Your task to perform on an android device: turn on the 12-hour format for clock Image 0: 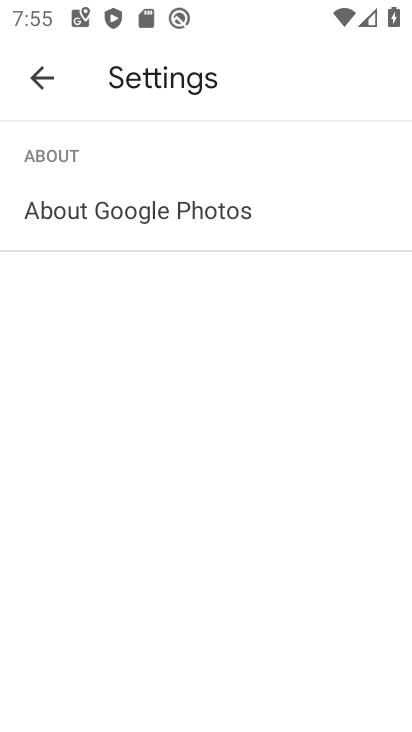
Step 0: press home button
Your task to perform on an android device: turn on the 12-hour format for clock Image 1: 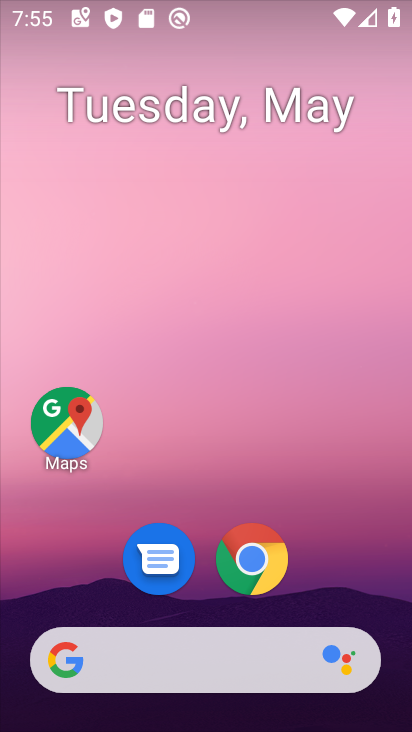
Step 1: drag from (400, 501) to (374, 58)
Your task to perform on an android device: turn on the 12-hour format for clock Image 2: 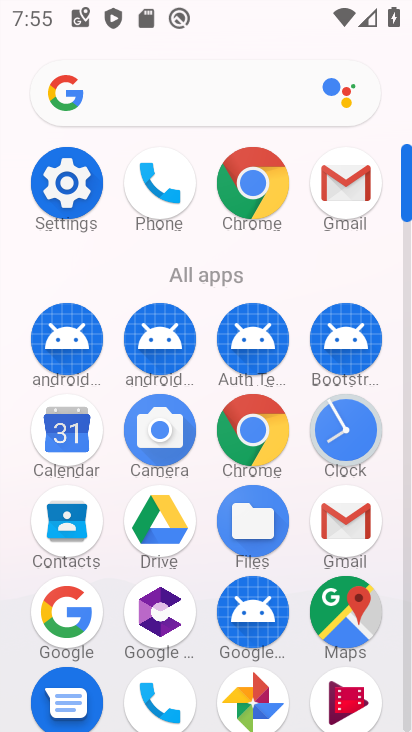
Step 2: click (337, 444)
Your task to perform on an android device: turn on the 12-hour format for clock Image 3: 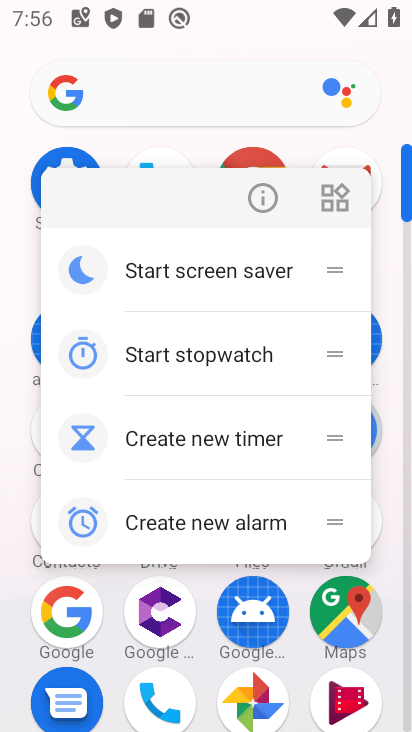
Step 3: press back button
Your task to perform on an android device: turn on the 12-hour format for clock Image 4: 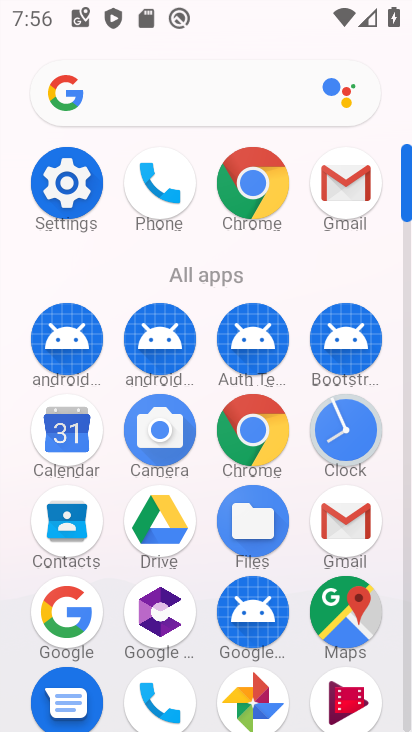
Step 4: click (352, 427)
Your task to perform on an android device: turn on the 12-hour format for clock Image 5: 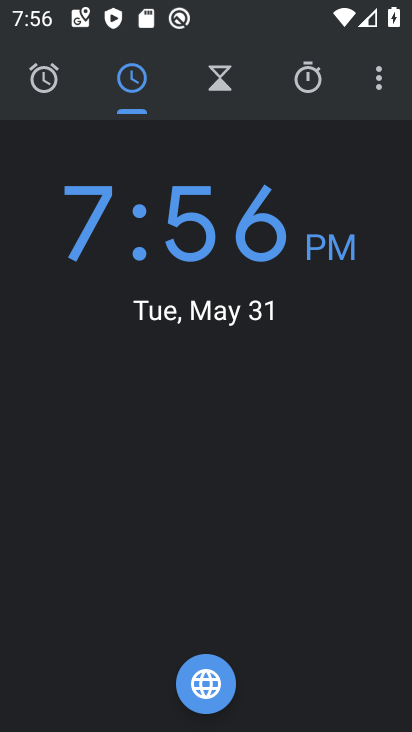
Step 5: click (392, 91)
Your task to perform on an android device: turn on the 12-hour format for clock Image 6: 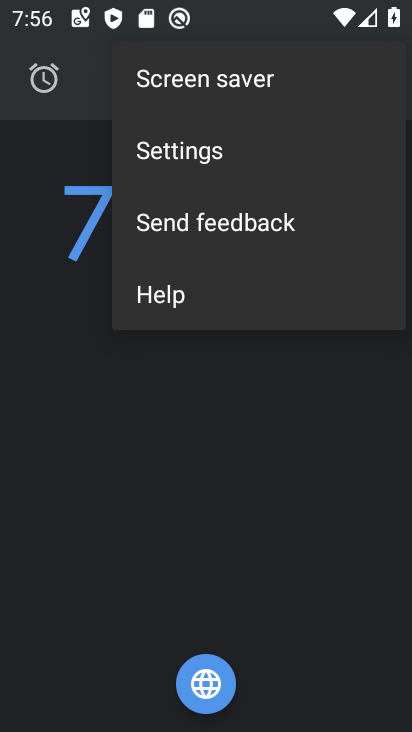
Step 6: click (182, 163)
Your task to perform on an android device: turn on the 12-hour format for clock Image 7: 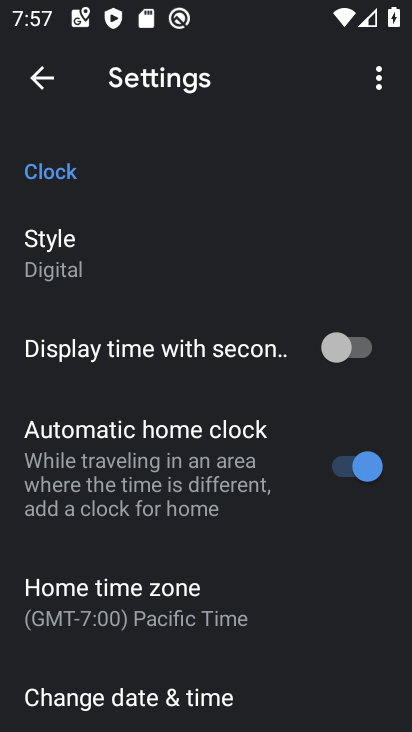
Step 7: drag from (151, 578) to (93, 260)
Your task to perform on an android device: turn on the 12-hour format for clock Image 8: 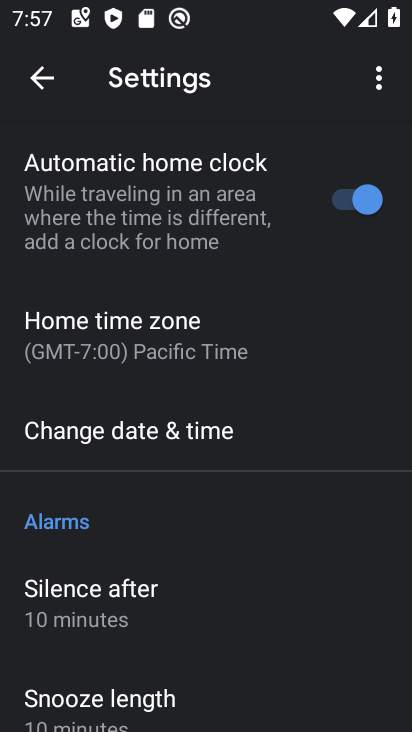
Step 8: click (176, 438)
Your task to perform on an android device: turn on the 12-hour format for clock Image 9: 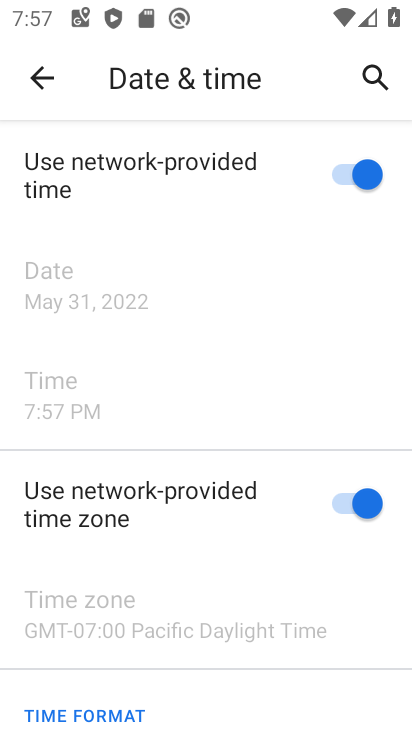
Step 9: task complete